Your task to perform on an android device: Search for Mexican restaurants on Maps Image 0: 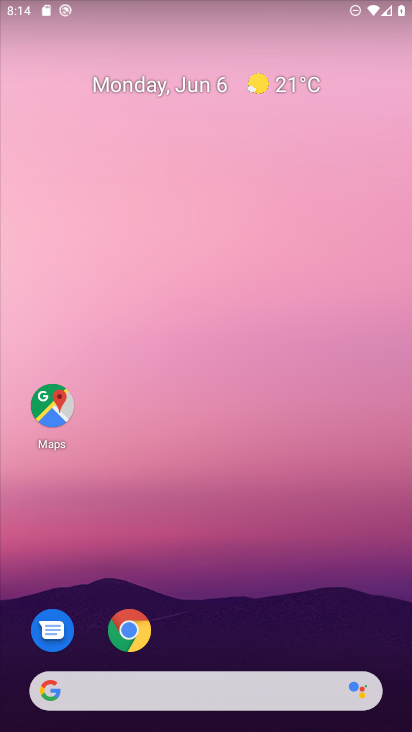
Step 0: click (57, 401)
Your task to perform on an android device: Search for Mexican restaurants on Maps Image 1: 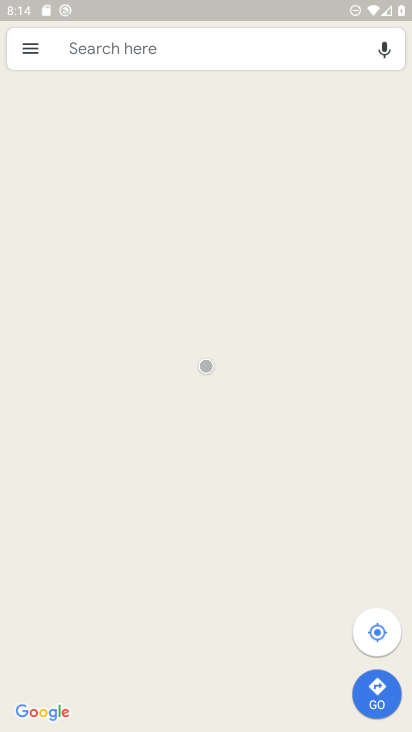
Step 1: click (176, 44)
Your task to perform on an android device: Search for Mexican restaurants on Maps Image 2: 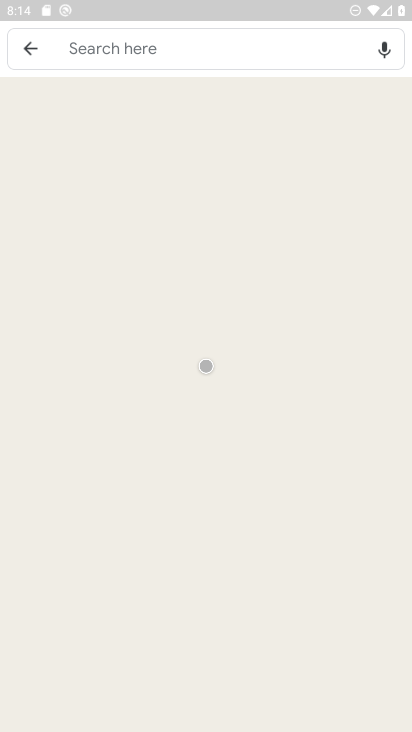
Step 2: click (176, 44)
Your task to perform on an android device: Search for Mexican restaurants on Maps Image 3: 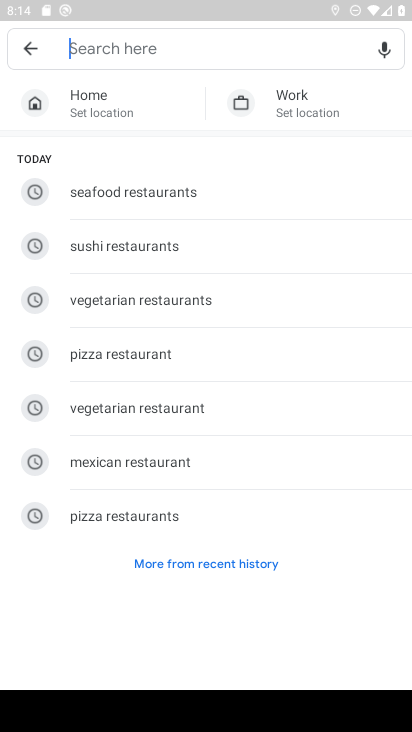
Step 3: type "Mexican restaurants"
Your task to perform on an android device: Search for Mexican restaurants on Maps Image 4: 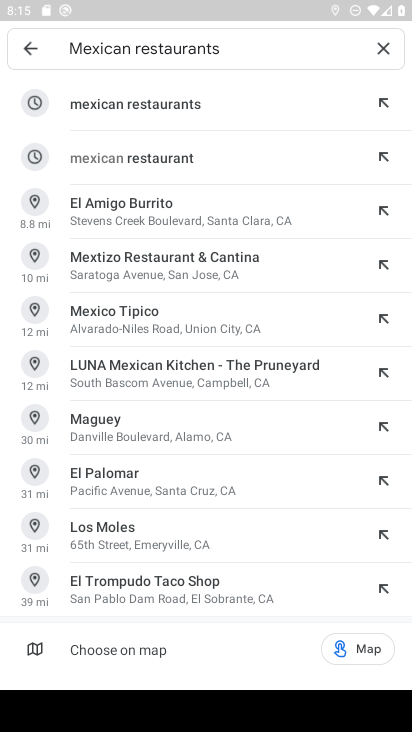
Step 4: click (167, 96)
Your task to perform on an android device: Search for Mexican restaurants on Maps Image 5: 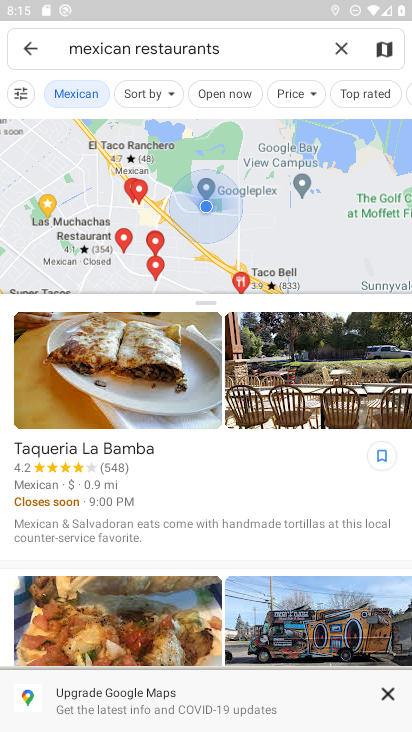
Step 5: task complete